Your task to perform on an android device: toggle data saver in the chrome app Image 0: 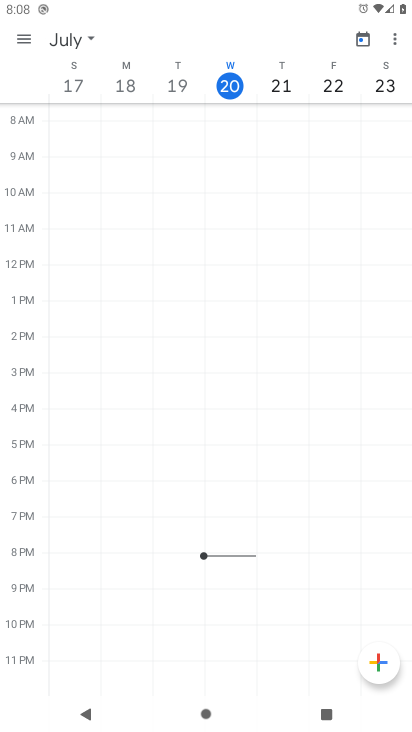
Step 0: press home button
Your task to perform on an android device: toggle data saver in the chrome app Image 1: 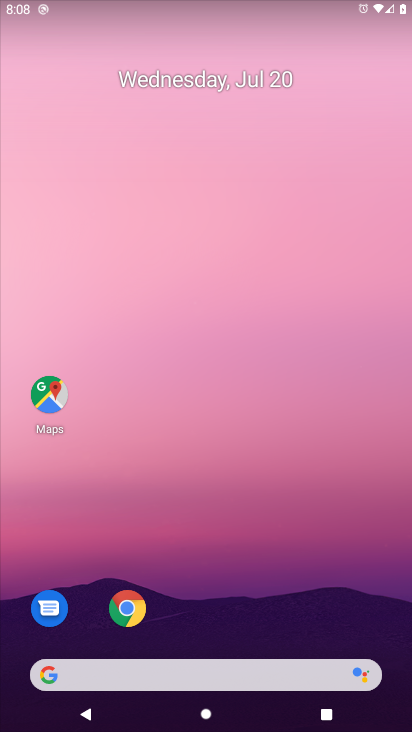
Step 1: click (136, 596)
Your task to perform on an android device: toggle data saver in the chrome app Image 2: 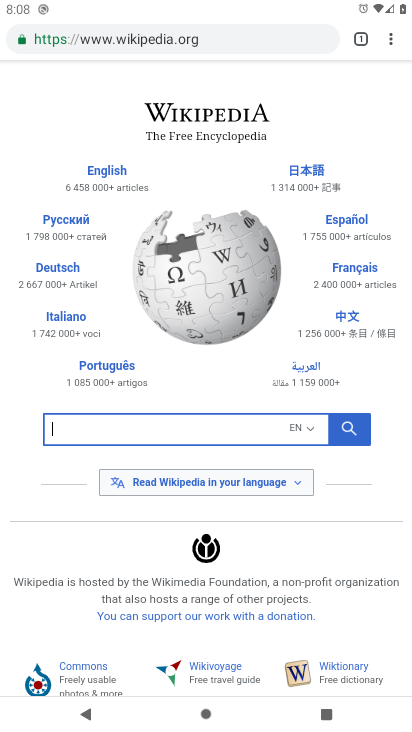
Step 2: click (396, 34)
Your task to perform on an android device: toggle data saver in the chrome app Image 3: 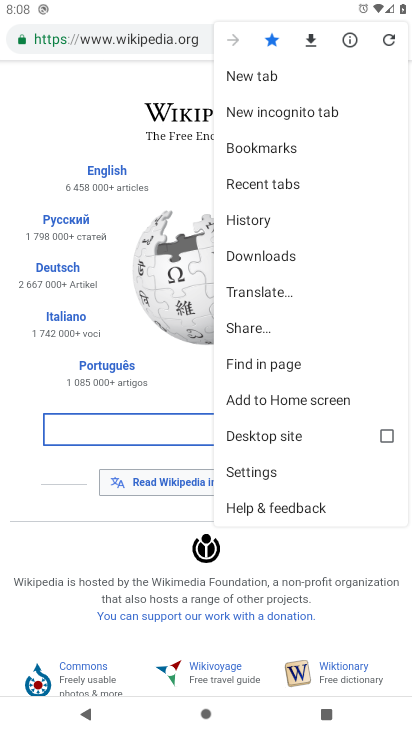
Step 3: click (254, 471)
Your task to perform on an android device: toggle data saver in the chrome app Image 4: 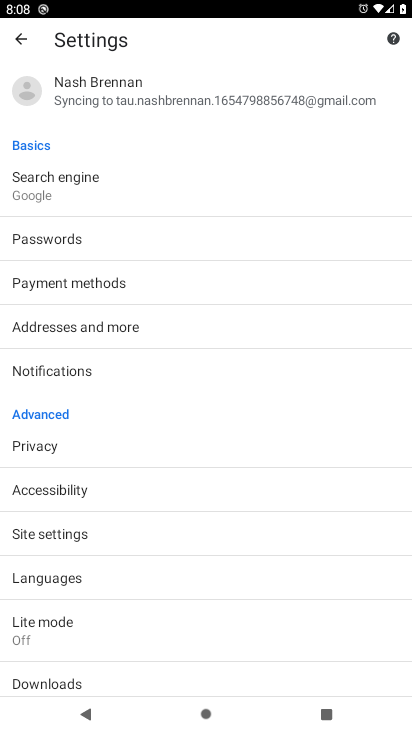
Step 4: click (45, 634)
Your task to perform on an android device: toggle data saver in the chrome app Image 5: 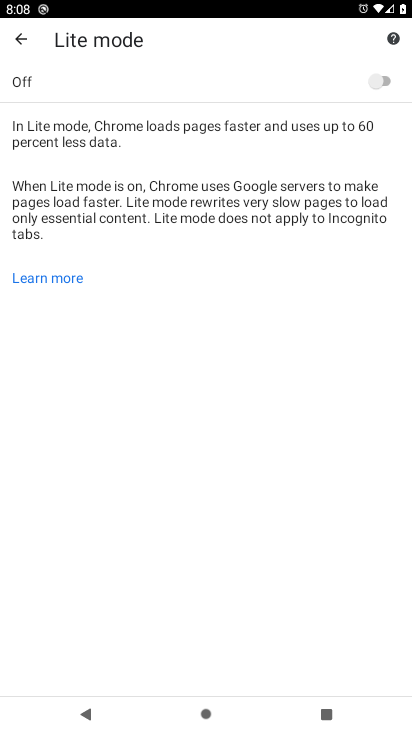
Step 5: click (395, 89)
Your task to perform on an android device: toggle data saver in the chrome app Image 6: 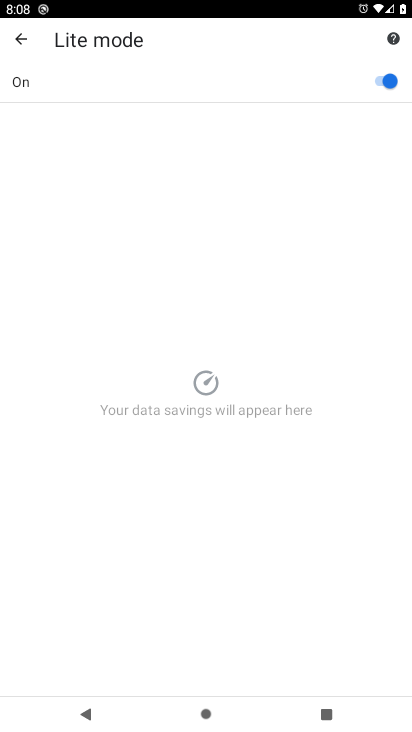
Step 6: task complete